Your task to perform on an android device: Open the Play Movies app and select the watchlist tab. Image 0: 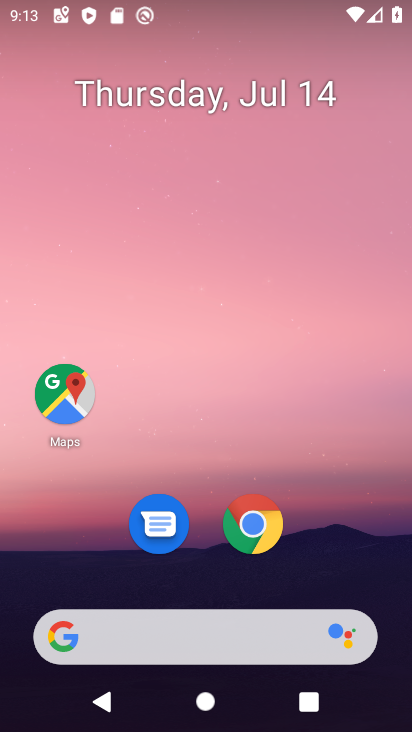
Step 0: drag from (204, 460) to (173, 108)
Your task to perform on an android device: Open the Play Movies app and select the watchlist tab. Image 1: 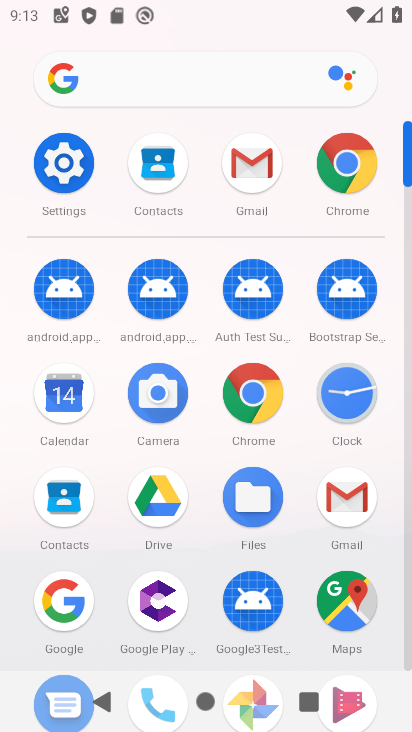
Step 1: drag from (303, 508) to (290, 267)
Your task to perform on an android device: Open the Play Movies app and select the watchlist tab. Image 2: 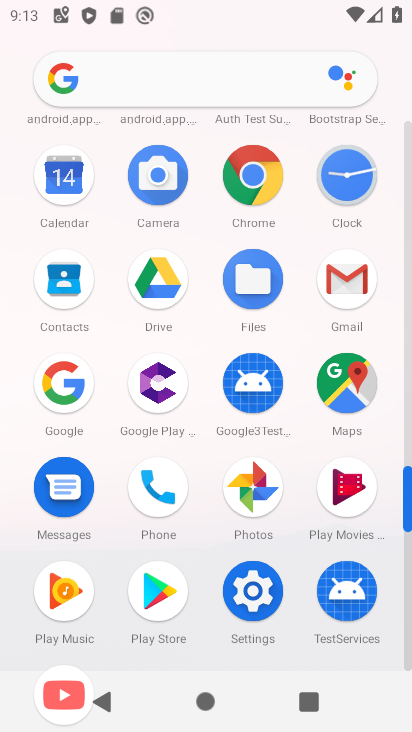
Step 2: click (348, 488)
Your task to perform on an android device: Open the Play Movies app and select the watchlist tab. Image 3: 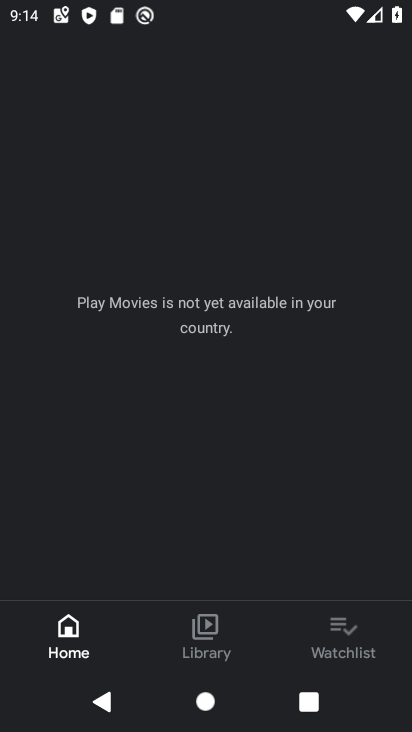
Step 3: click (351, 638)
Your task to perform on an android device: Open the Play Movies app and select the watchlist tab. Image 4: 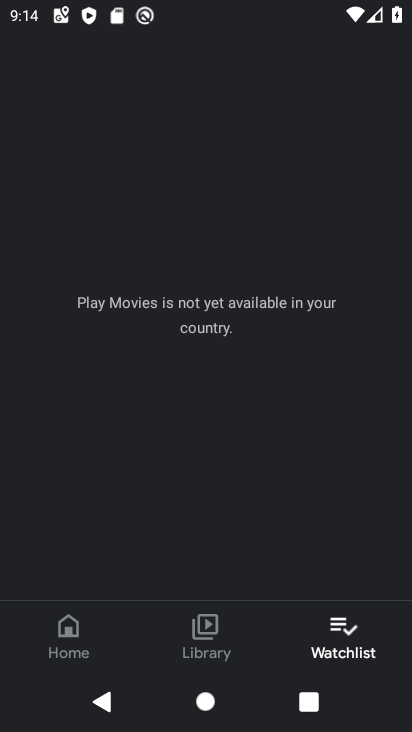
Step 4: task complete